Your task to perform on an android device: Go to Google maps Image 0: 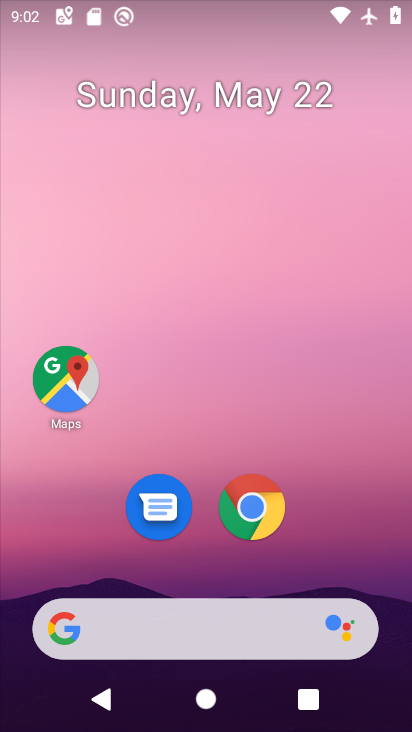
Step 0: click (52, 395)
Your task to perform on an android device: Go to Google maps Image 1: 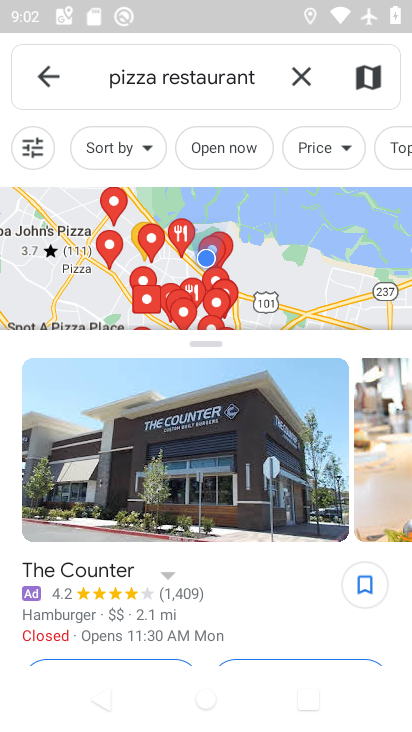
Step 1: task complete